Your task to perform on an android device: set default search engine in the chrome app Image 0: 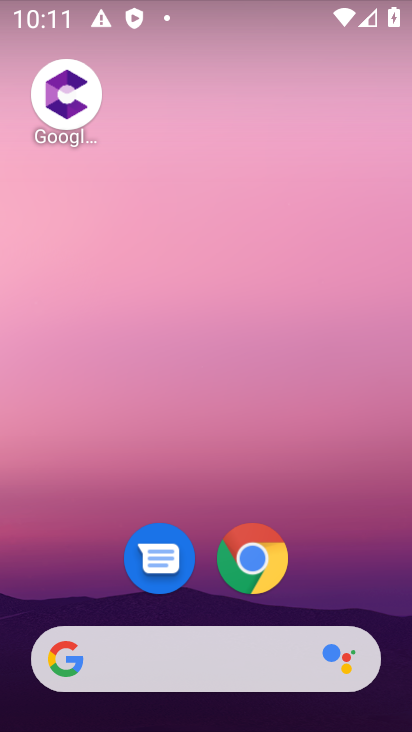
Step 0: drag from (354, 584) to (345, 123)
Your task to perform on an android device: set default search engine in the chrome app Image 1: 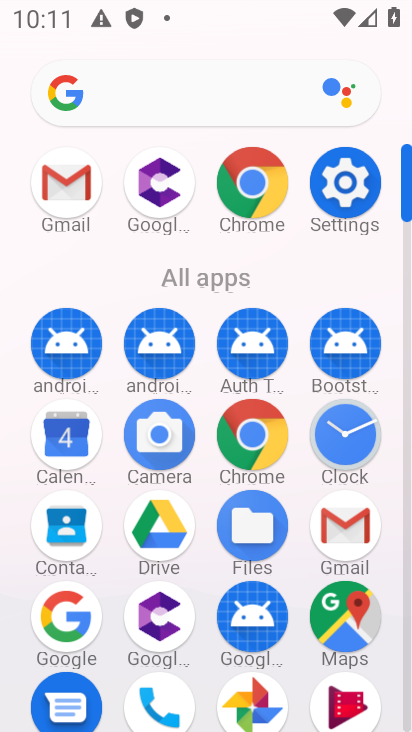
Step 1: click (252, 430)
Your task to perform on an android device: set default search engine in the chrome app Image 2: 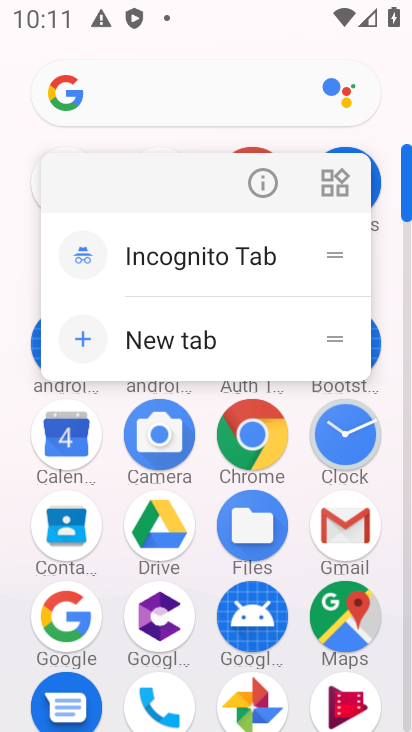
Step 2: click (248, 432)
Your task to perform on an android device: set default search engine in the chrome app Image 3: 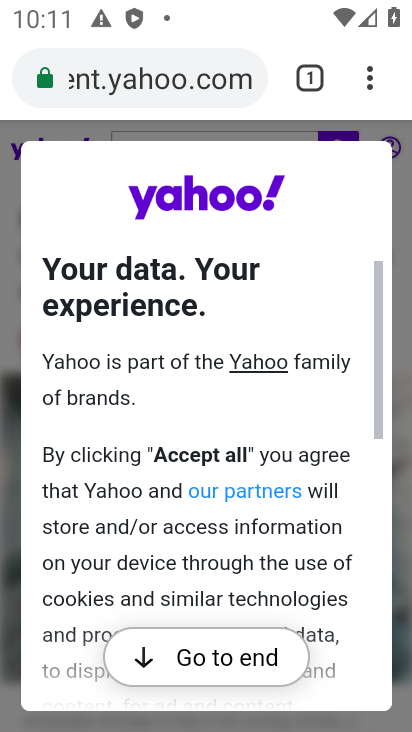
Step 3: drag from (365, 84) to (146, 619)
Your task to perform on an android device: set default search engine in the chrome app Image 4: 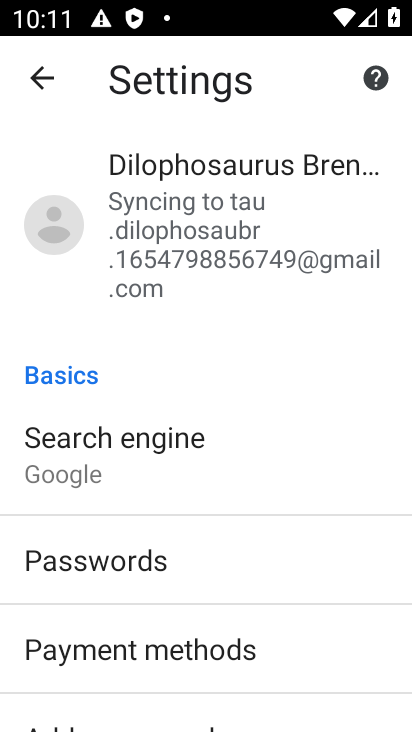
Step 4: click (159, 465)
Your task to perform on an android device: set default search engine in the chrome app Image 5: 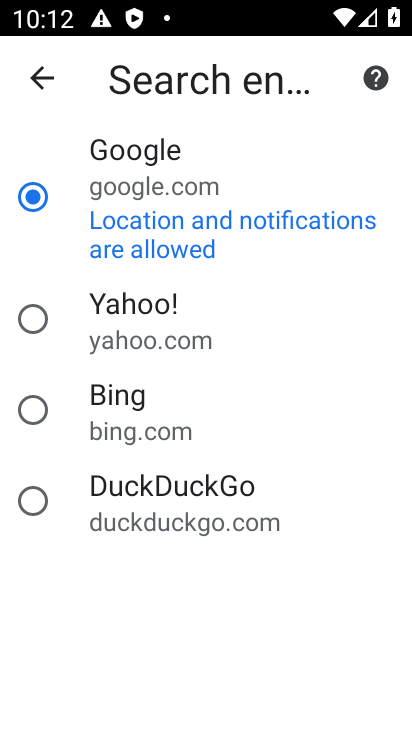
Step 5: task complete